Your task to perform on an android device: turn on wifi Image 0: 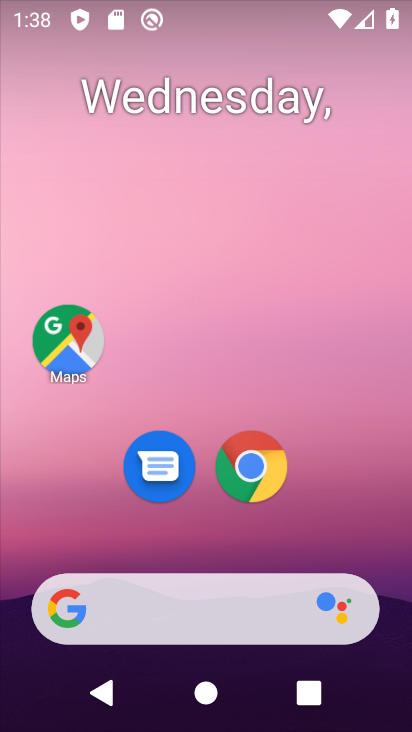
Step 0: drag from (322, 528) to (258, 12)
Your task to perform on an android device: turn on wifi Image 1: 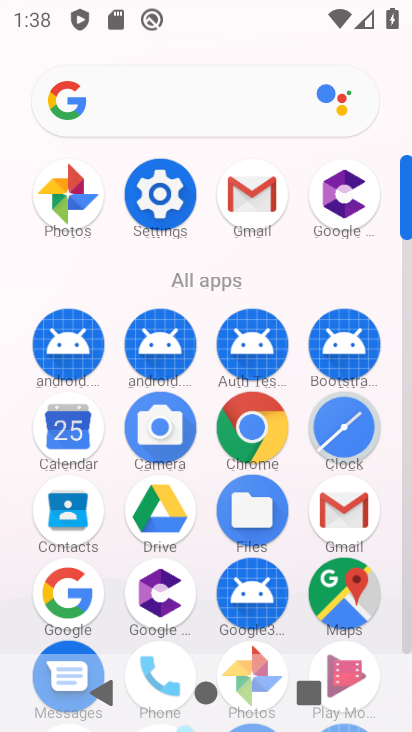
Step 1: drag from (16, 574) to (25, 315)
Your task to perform on an android device: turn on wifi Image 2: 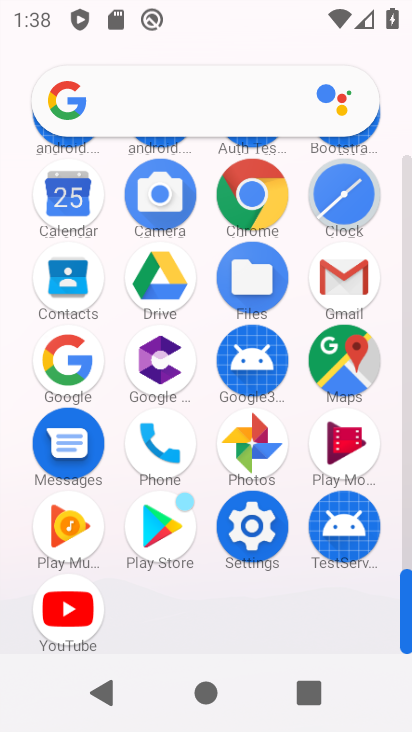
Step 2: click (253, 523)
Your task to perform on an android device: turn on wifi Image 3: 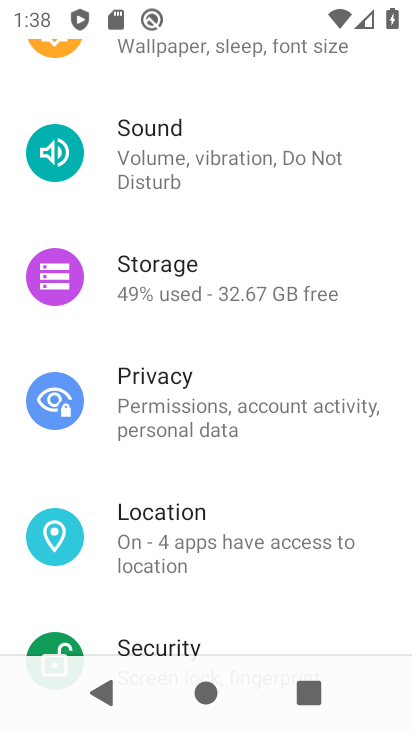
Step 3: drag from (287, 147) to (276, 559)
Your task to perform on an android device: turn on wifi Image 4: 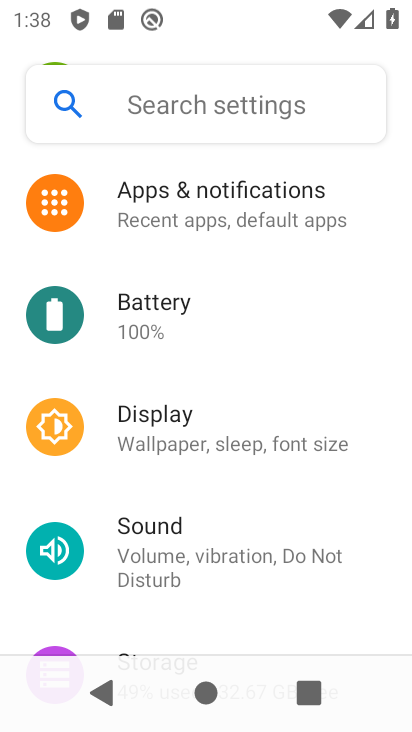
Step 4: drag from (253, 239) to (248, 595)
Your task to perform on an android device: turn on wifi Image 5: 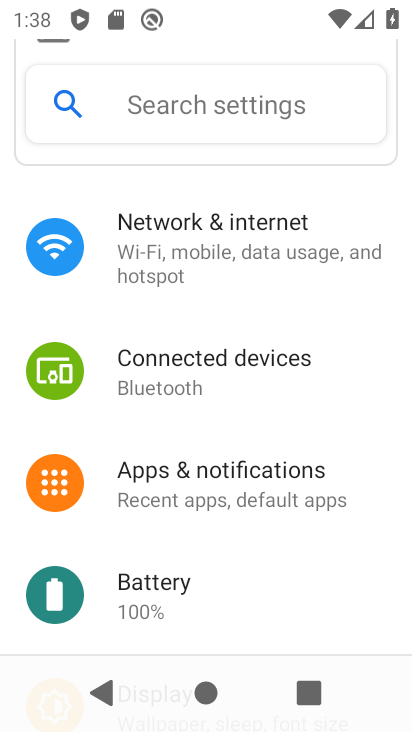
Step 5: drag from (248, 259) to (253, 519)
Your task to perform on an android device: turn on wifi Image 6: 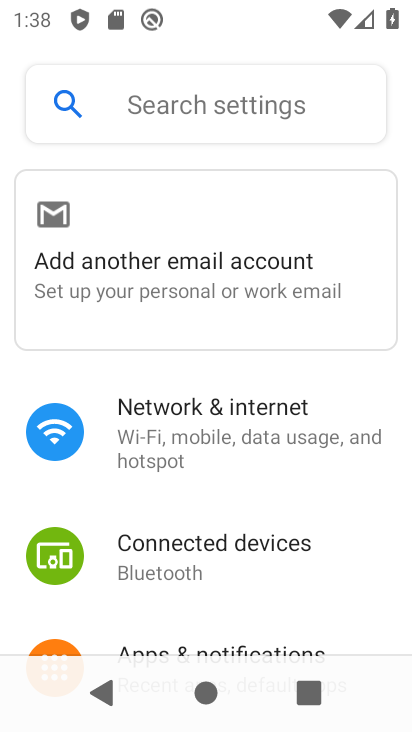
Step 6: click (236, 421)
Your task to perform on an android device: turn on wifi Image 7: 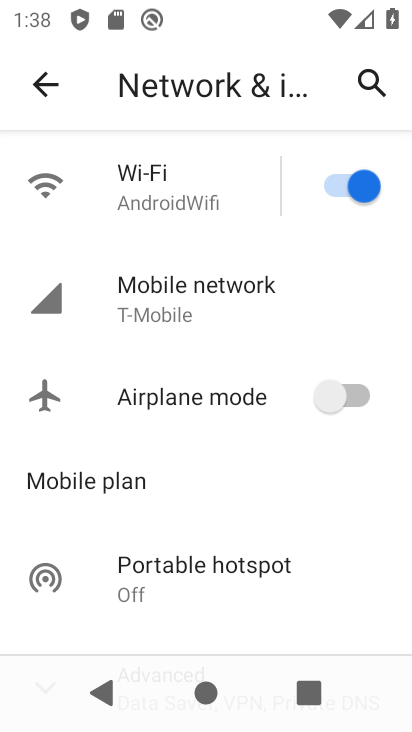
Step 7: task complete